Your task to perform on an android device: Open Chrome and go to settings Image 0: 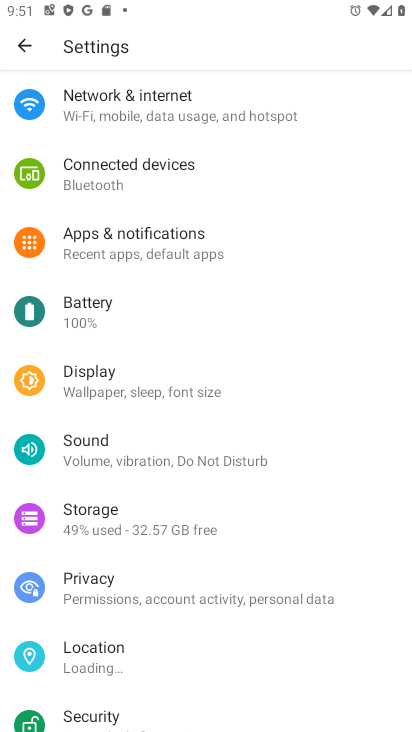
Step 0: press home button
Your task to perform on an android device: Open Chrome and go to settings Image 1: 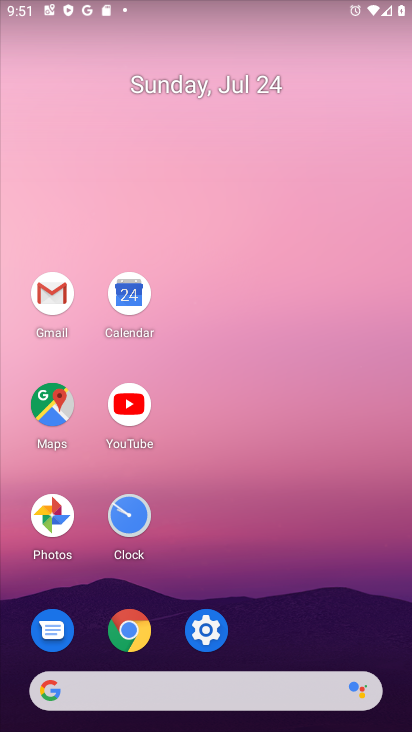
Step 1: click (127, 629)
Your task to perform on an android device: Open Chrome and go to settings Image 2: 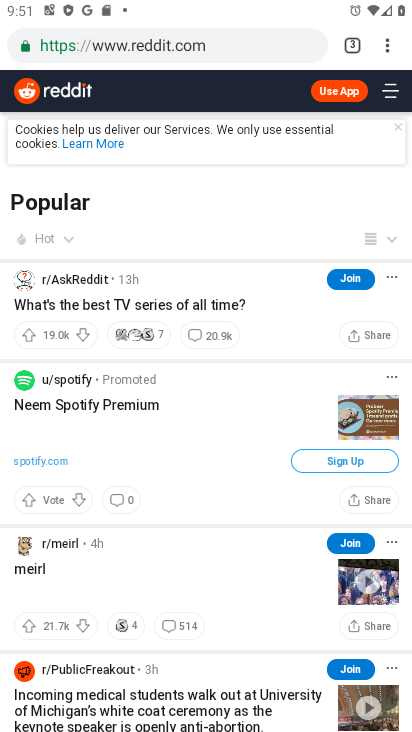
Step 2: click (386, 44)
Your task to perform on an android device: Open Chrome and go to settings Image 3: 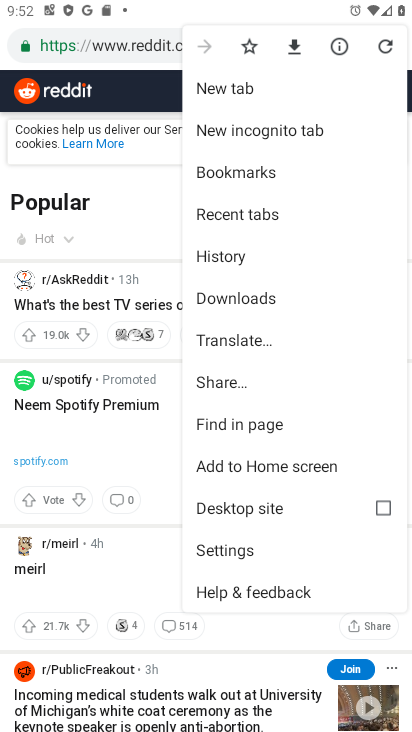
Step 3: click (221, 544)
Your task to perform on an android device: Open Chrome and go to settings Image 4: 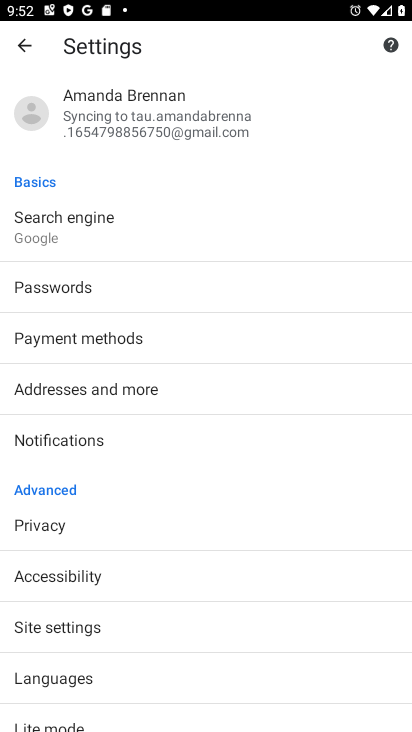
Step 4: task complete